Your task to perform on an android device: Add asus zenbook to the cart on costco.com Image 0: 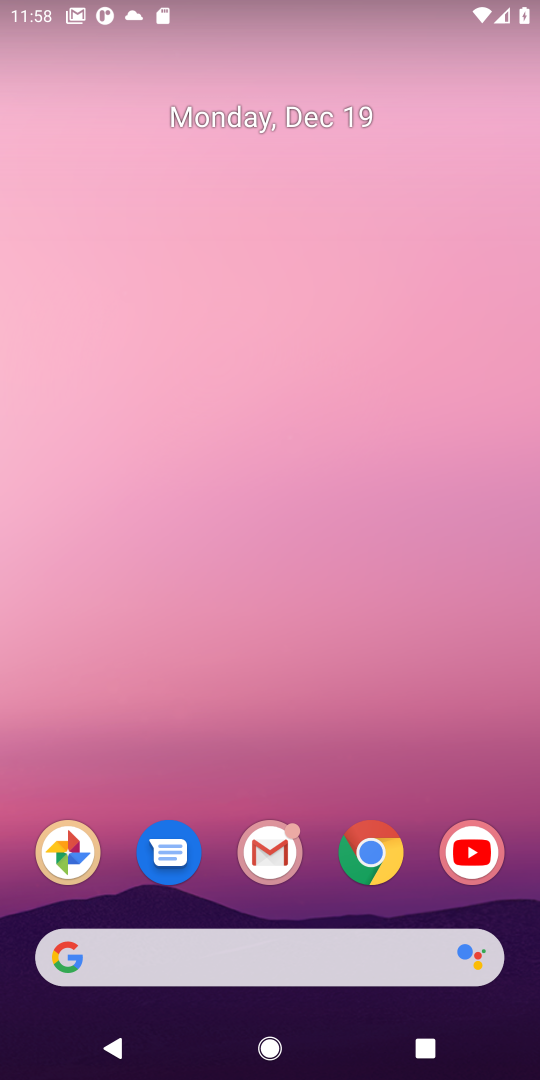
Step 0: click (366, 852)
Your task to perform on an android device: Add asus zenbook to the cart on costco.com Image 1: 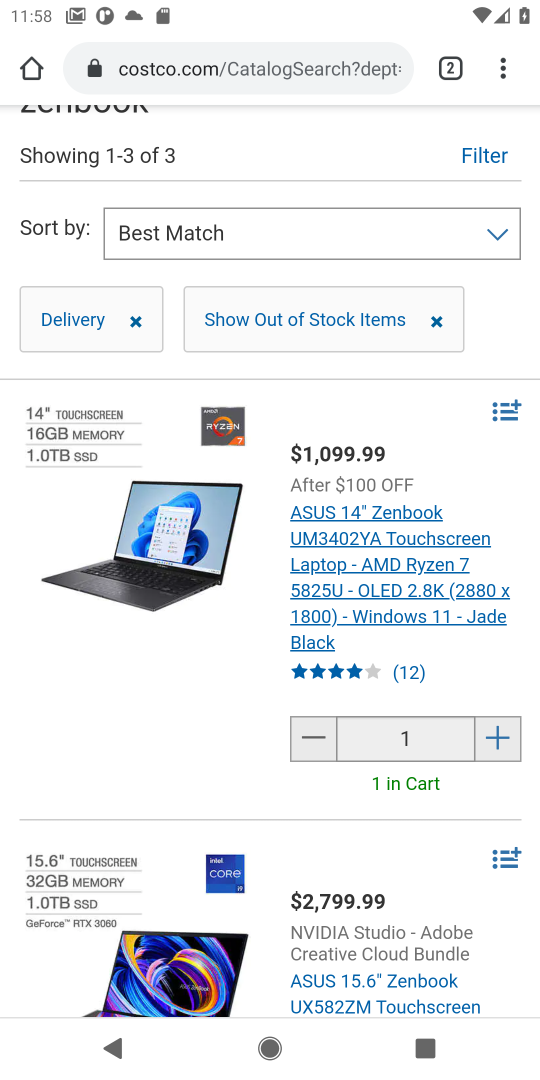
Step 1: drag from (361, 344) to (276, 783)
Your task to perform on an android device: Add asus zenbook to the cart on costco.com Image 2: 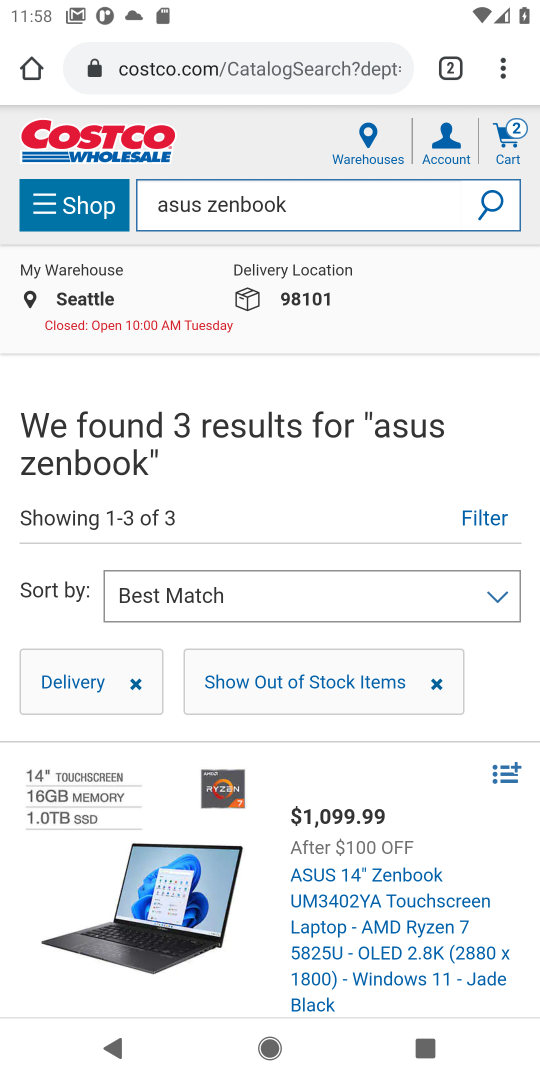
Step 2: drag from (313, 912) to (320, 643)
Your task to perform on an android device: Add asus zenbook to the cart on costco.com Image 3: 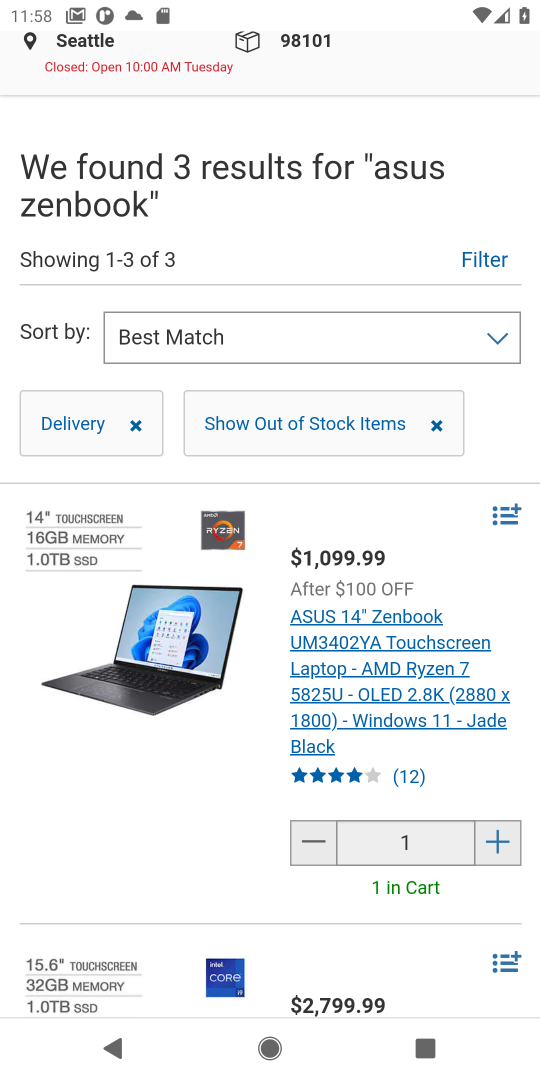
Step 3: click (490, 844)
Your task to perform on an android device: Add asus zenbook to the cart on costco.com Image 4: 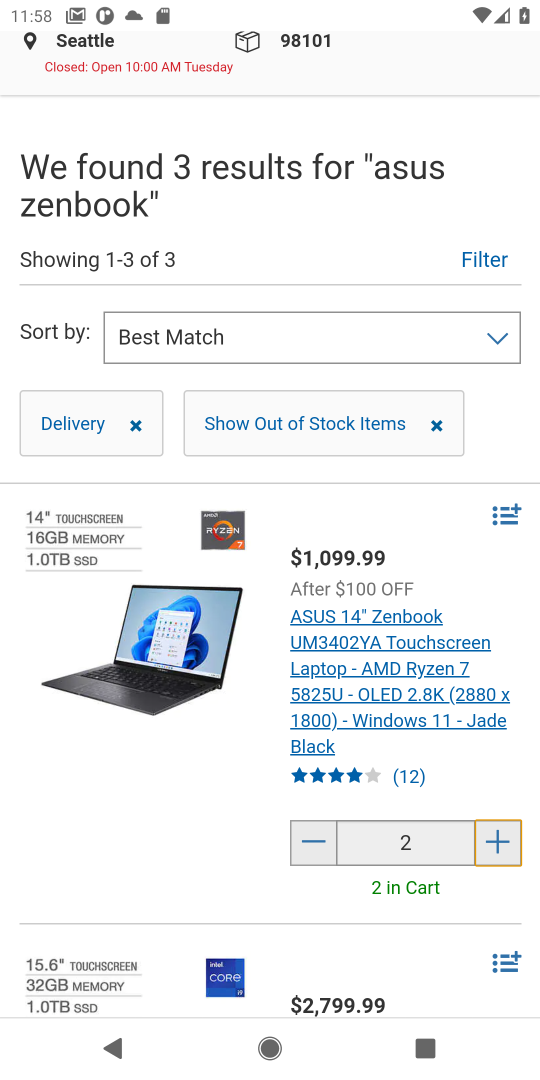
Step 4: task complete